Your task to perform on an android device: Search for pizza restaurants on Maps Image 0: 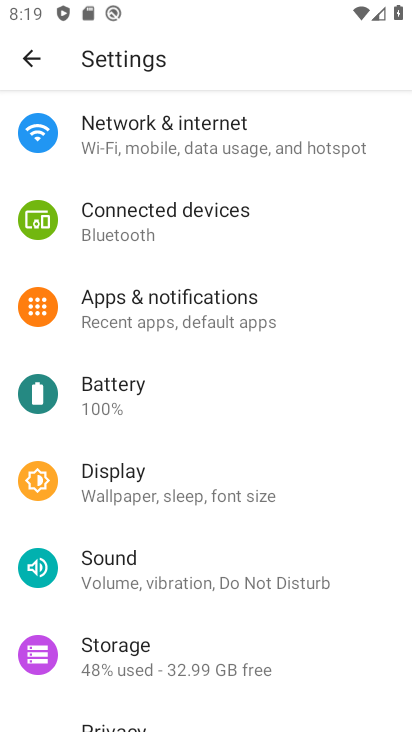
Step 0: press home button
Your task to perform on an android device: Search for pizza restaurants on Maps Image 1: 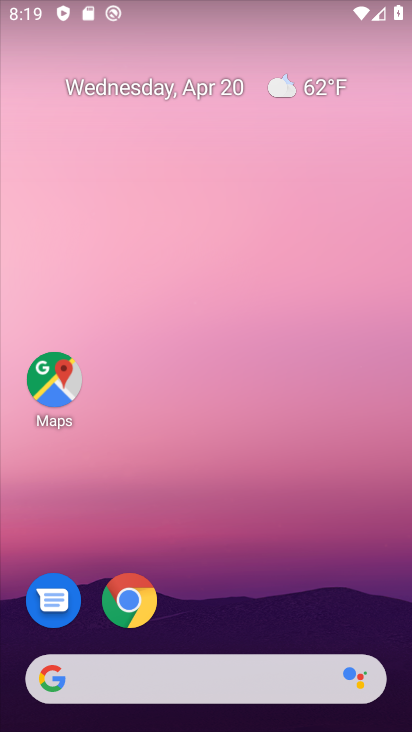
Step 1: drag from (203, 714) to (199, 149)
Your task to perform on an android device: Search for pizza restaurants on Maps Image 2: 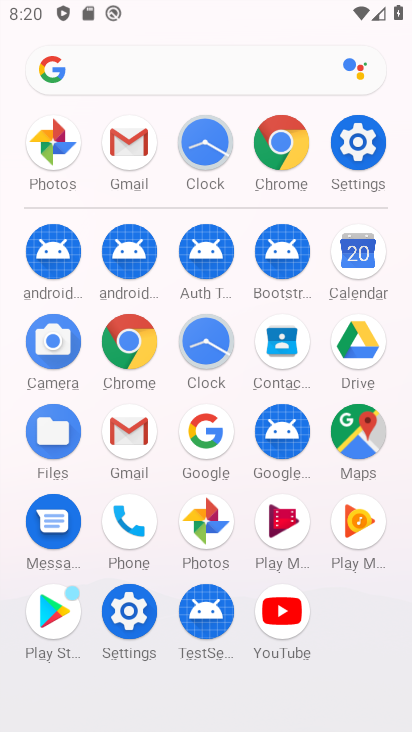
Step 2: click (362, 424)
Your task to perform on an android device: Search for pizza restaurants on Maps Image 3: 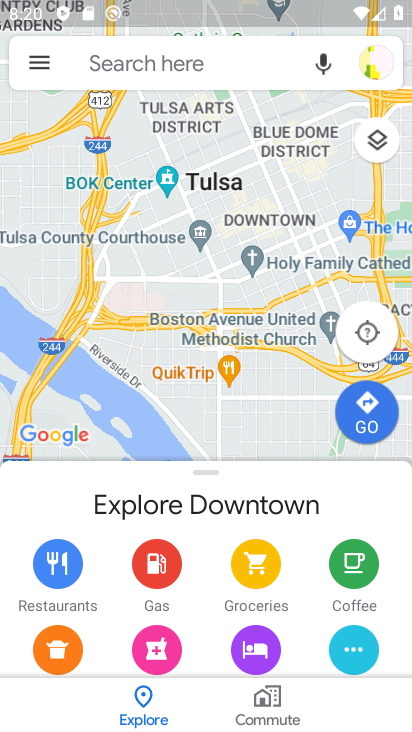
Step 3: click (188, 63)
Your task to perform on an android device: Search for pizza restaurants on Maps Image 4: 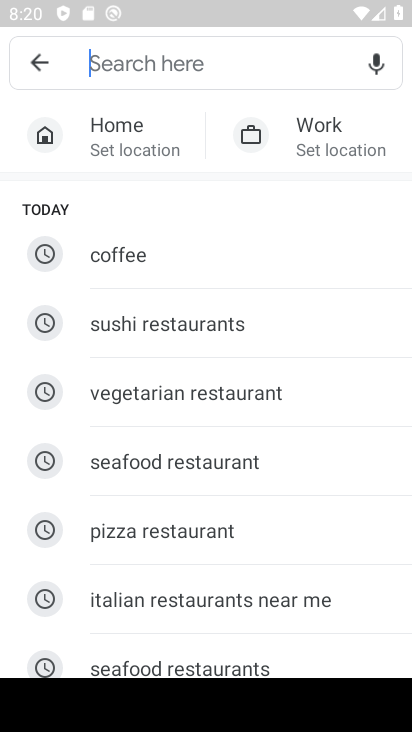
Step 4: type "pizza restaurants"
Your task to perform on an android device: Search for pizza restaurants on Maps Image 5: 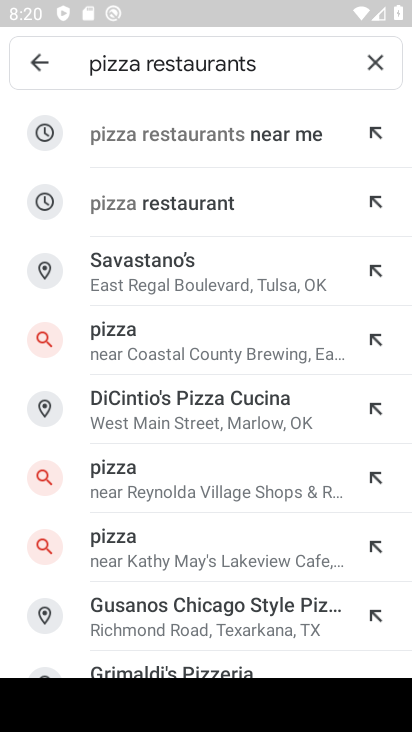
Step 5: click (150, 197)
Your task to perform on an android device: Search for pizza restaurants on Maps Image 6: 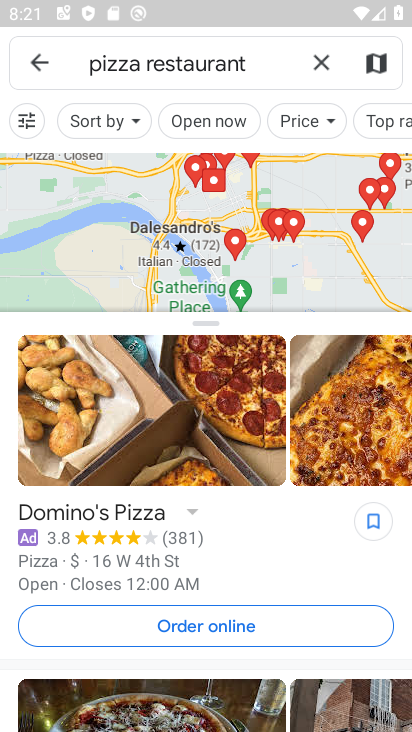
Step 6: task complete